Your task to perform on an android device: Open battery settings Image 0: 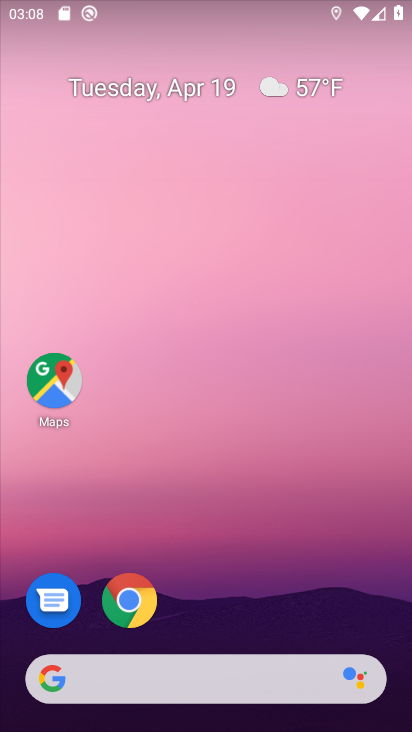
Step 0: drag from (376, 552) to (296, 170)
Your task to perform on an android device: Open battery settings Image 1: 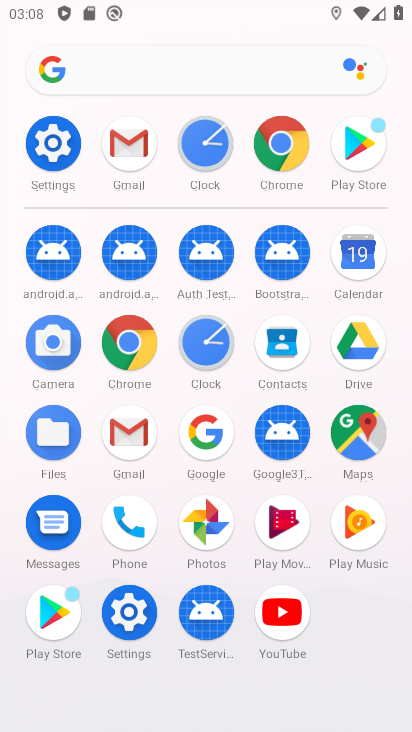
Step 1: click (60, 148)
Your task to perform on an android device: Open battery settings Image 2: 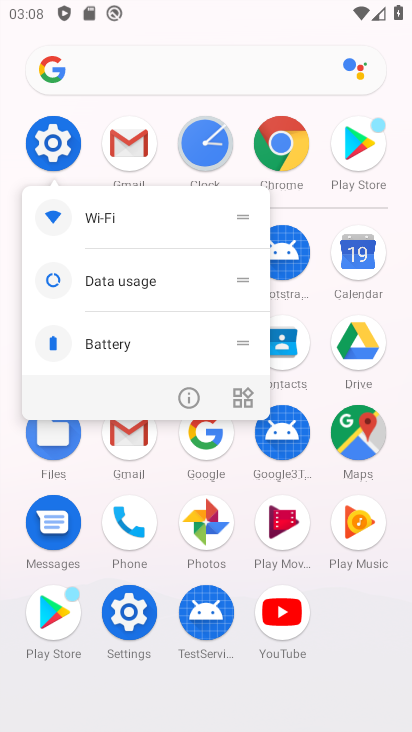
Step 2: click (387, 645)
Your task to perform on an android device: Open battery settings Image 3: 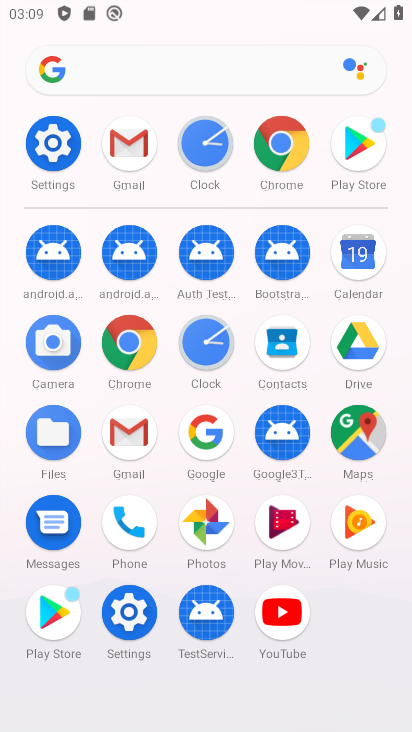
Step 3: click (62, 156)
Your task to perform on an android device: Open battery settings Image 4: 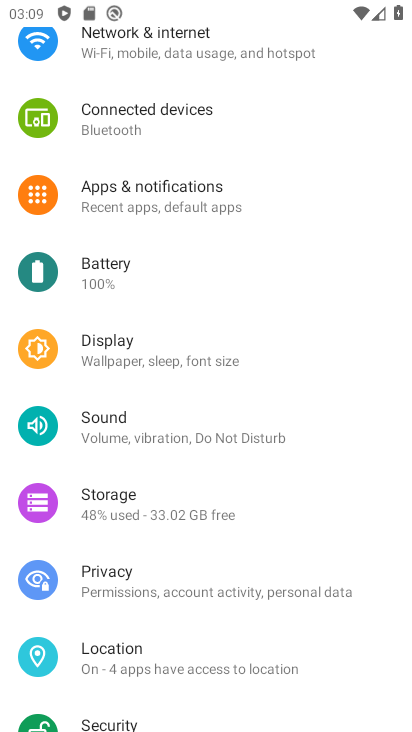
Step 4: click (170, 279)
Your task to perform on an android device: Open battery settings Image 5: 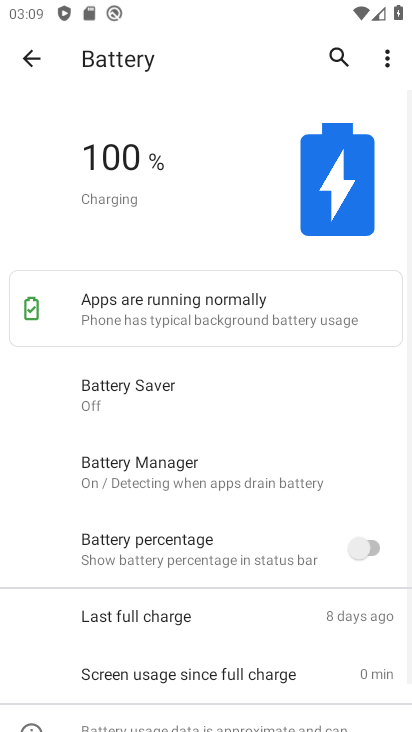
Step 5: task complete